Your task to perform on an android device: open the mobile data screen to see how much data has been used Image 0: 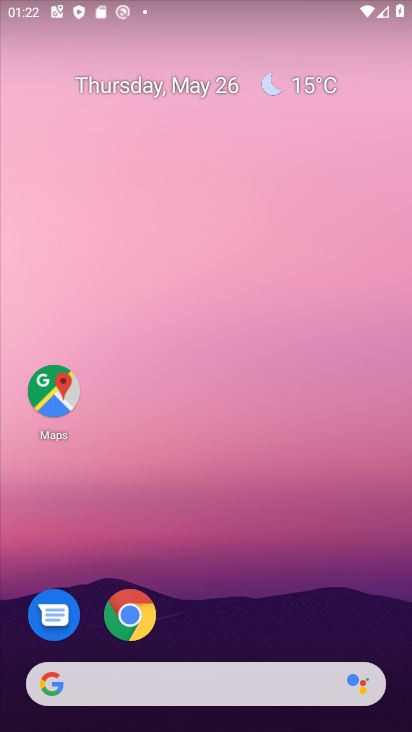
Step 0: drag from (277, 616) to (273, 142)
Your task to perform on an android device: open the mobile data screen to see how much data has been used Image 1: 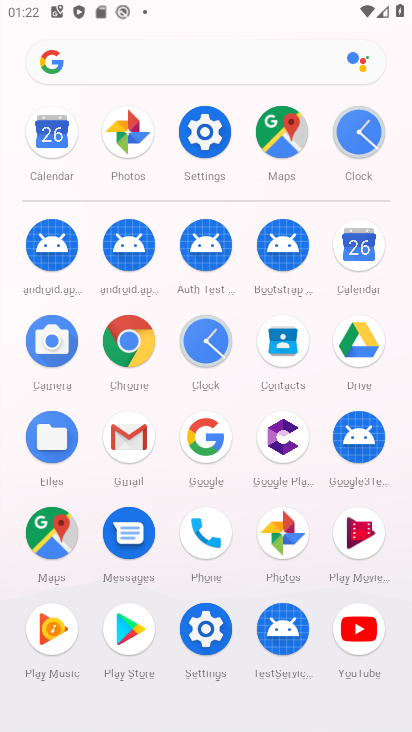
Step 1: click (198, 134)
Your task to perform on an android device: open the mobile data screen to see how much data has been used Image 2: 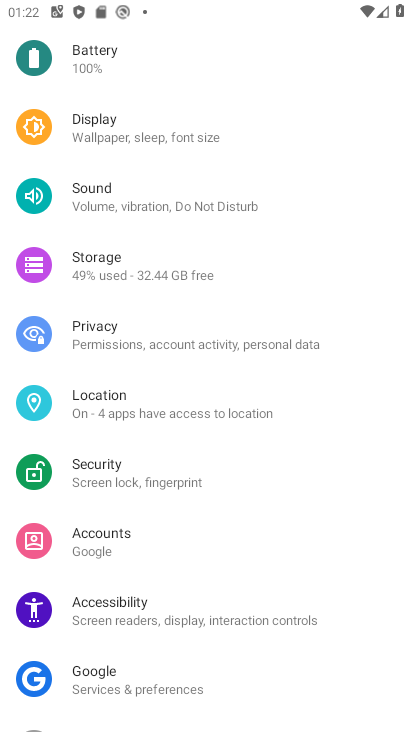
Step 2: drag from (201, 146) to (182, 725)
Your task to perform on an android device: open the mobile data screen to see how much data has been used Image 3: 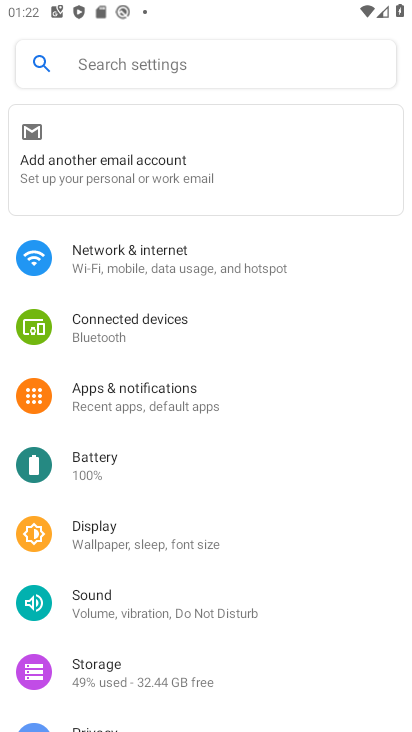
Step 3: click (163, 257)
Your task to perform on an android device: open the mobile data screen to see how much data has been used Image 4: 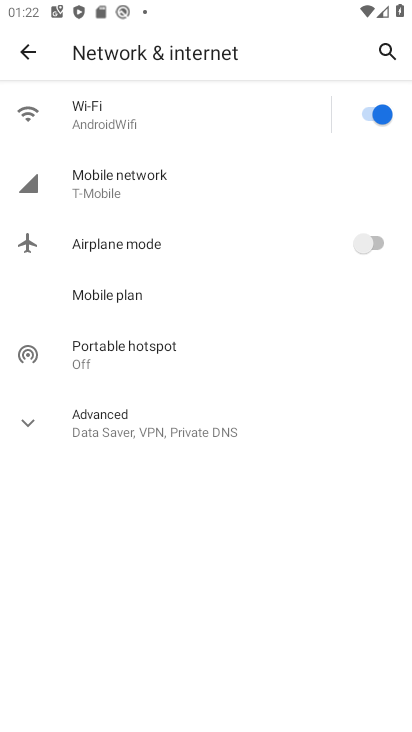
Step 4: click (111, 182)
Your task to perform on an android device: open the mobile data screen to see how much data has been used Image 5: 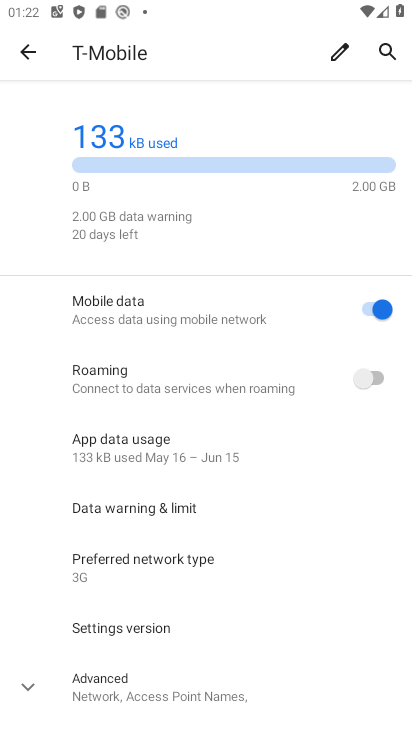
Step 5: click (199, 448)
Your task to perform on an android device: open the mobile data screen to see how much data has been used Image 6: 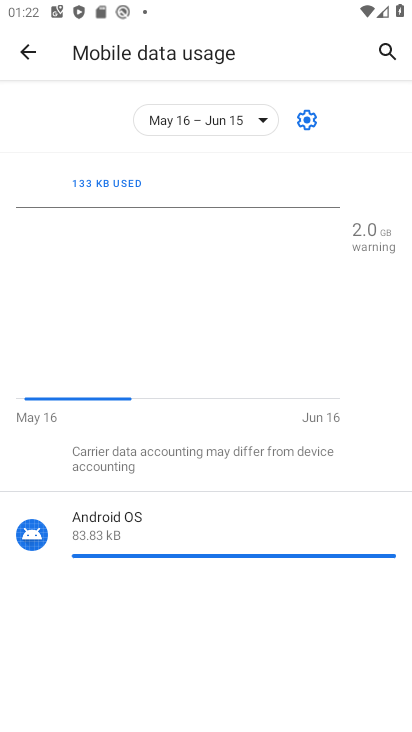
Step 6: task complete